Your task to perform on an android device: delete browsing data in the chrome app Image 0: 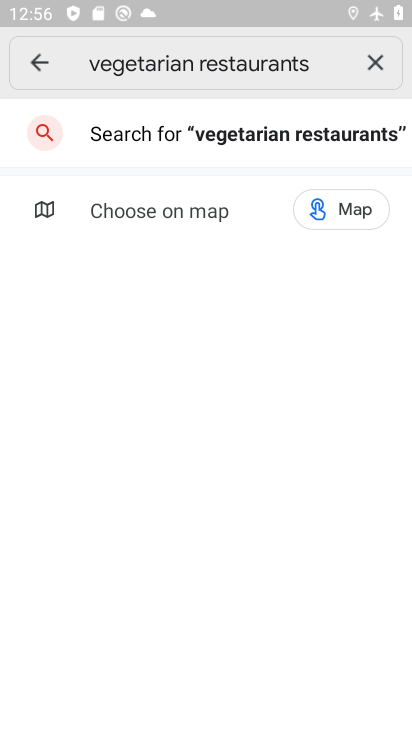
Step 0: press back button
Your task to perform on an android device: delete browsing data in the chrome app Image 1: 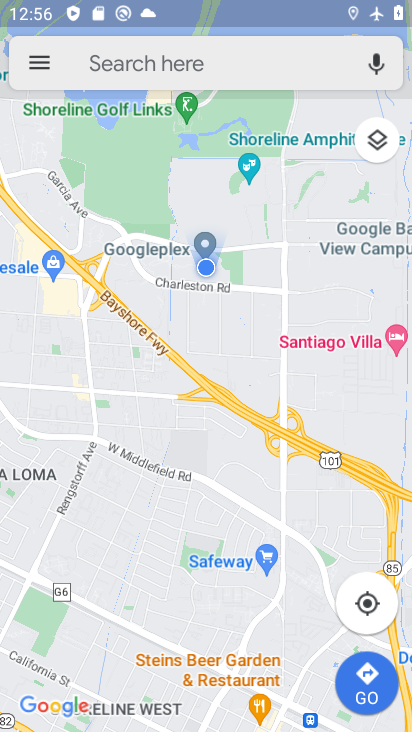
Step 1: press home button
Your task to perform on an android device: delete browsing data in the chrome app Image 2: 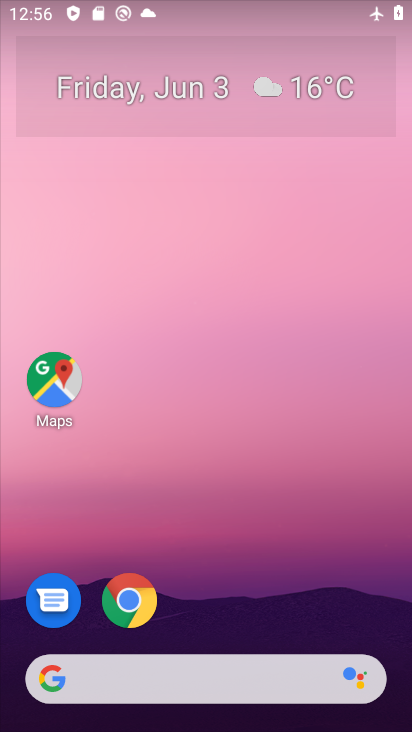
Step 2: click (142, 612)
Your task to perform on an android device: delete browsing data in the chrome app Image 3: 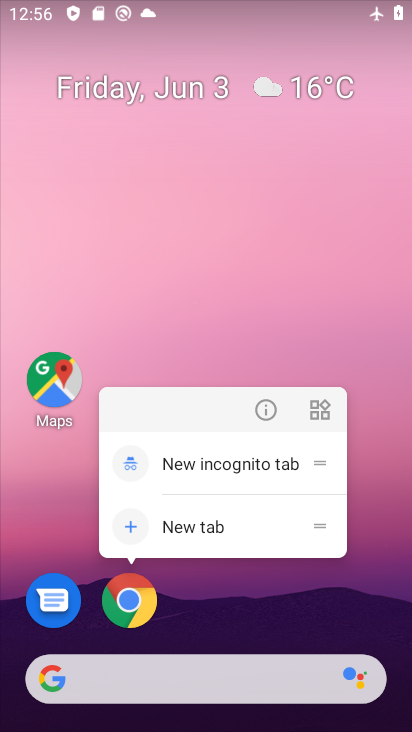
Step 3: click (118, 606)
Your task to perform on an android device: delete browsing data in the chrome app Image 4: 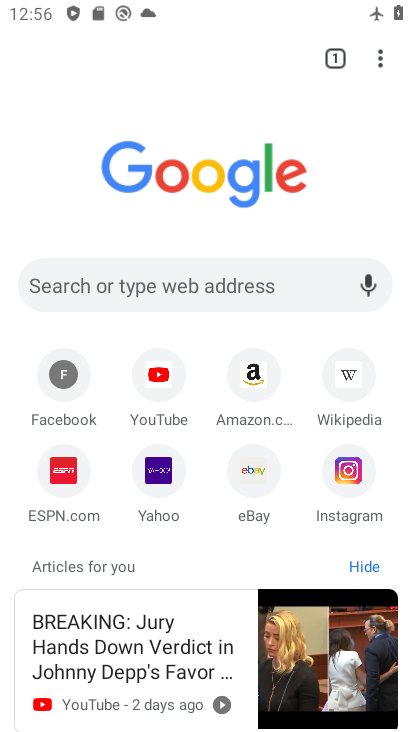
Step 4: click (383, 63)
Your task to perform on an android device: delete browsing data in the chrome app Image 5: 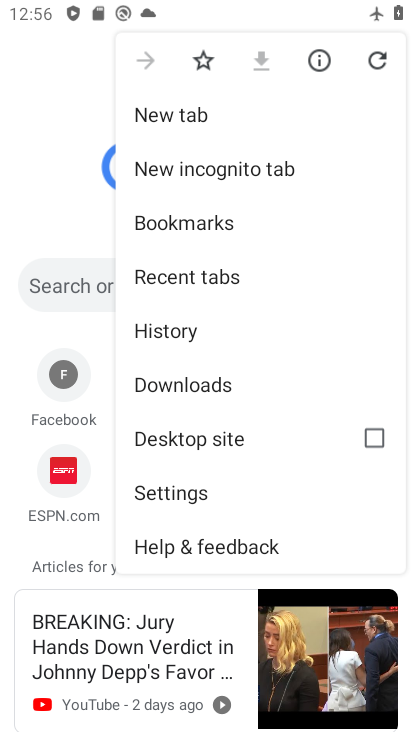
Step 5: click (158, 336)
Your task to perform on an android device: delete browsing data in the chrome app Image 6: 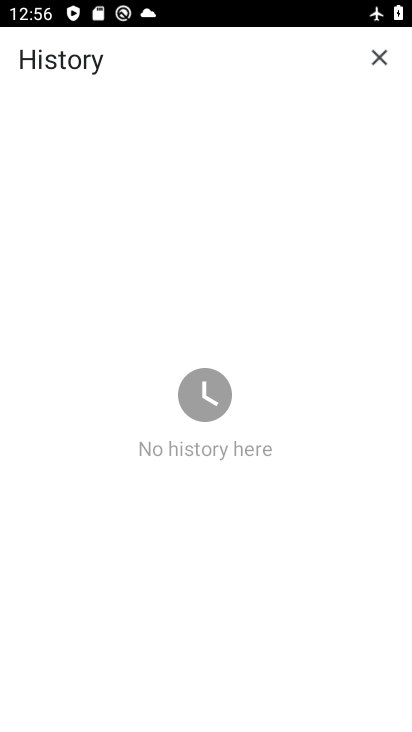
Step 6: task complete